Your task to perform on an android device: Go to CNN.com Image 0: 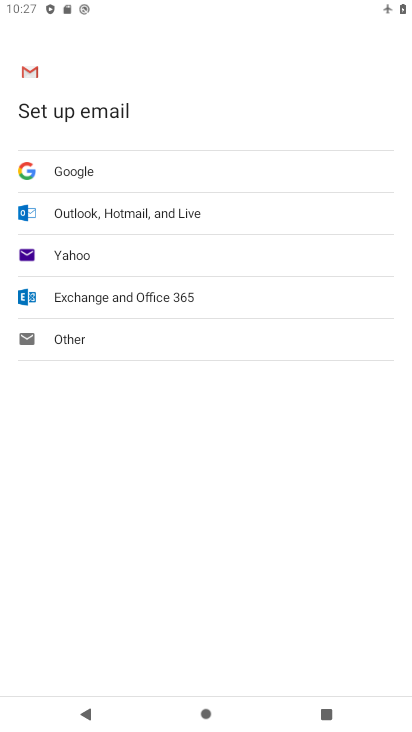
Step 0: press home button
Your task to perform on an android device: Go to CNN.com Image 1: 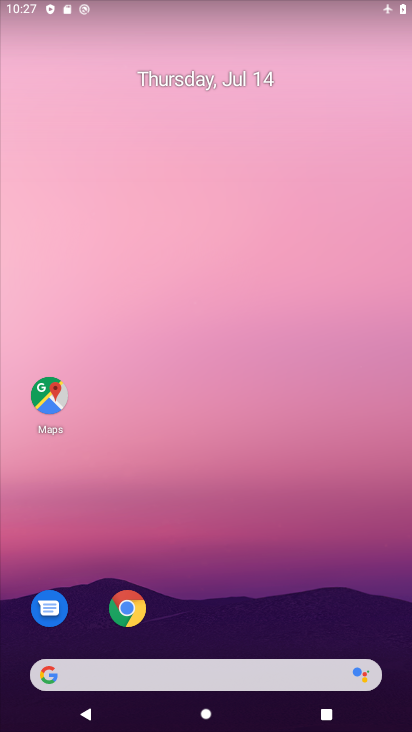
Step 1: click (124, 610)
Your task to perform on an android device: Go to CNN.com Image 2: 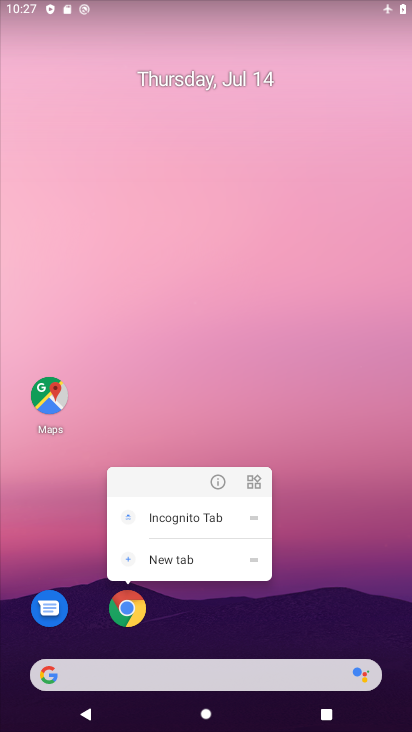
Step 2: click (132, 608)
Your task to perform on an android device: Go to CNN.com Image 3: 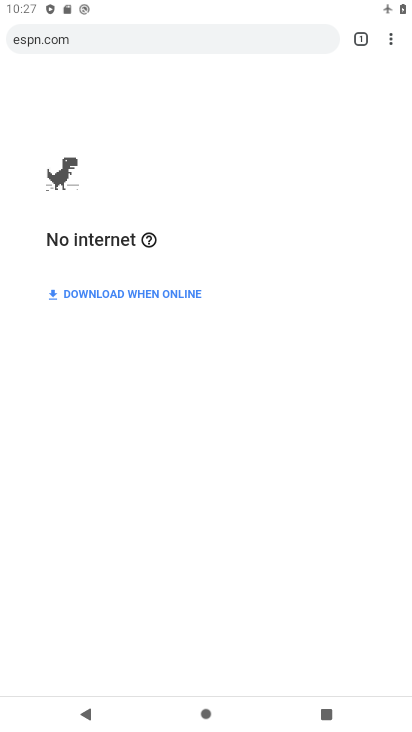
Step 3: click (167, 44)
Your task to perform on an android device: Go to CNN.com Image 4: 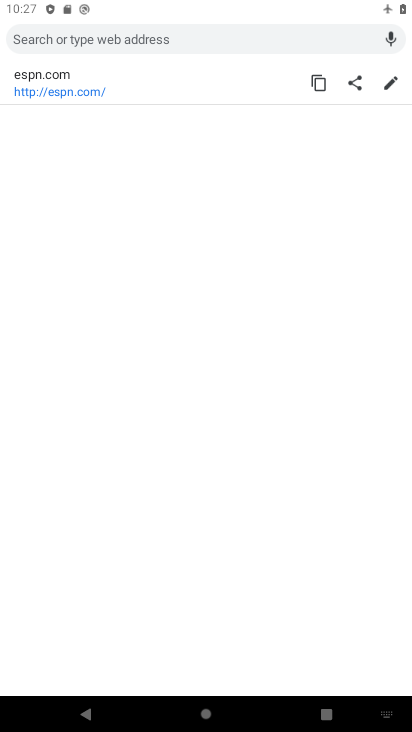
Step 4: type "CNN.com"
Your task to perform on an android device: Go to CNN.com Image 5: 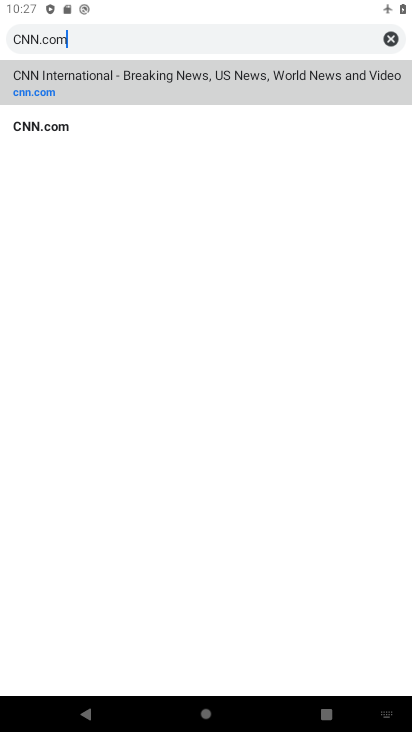
Step 5: click (105, 83)
Your task to perform on an android device: Go to CNN.com Image 6: 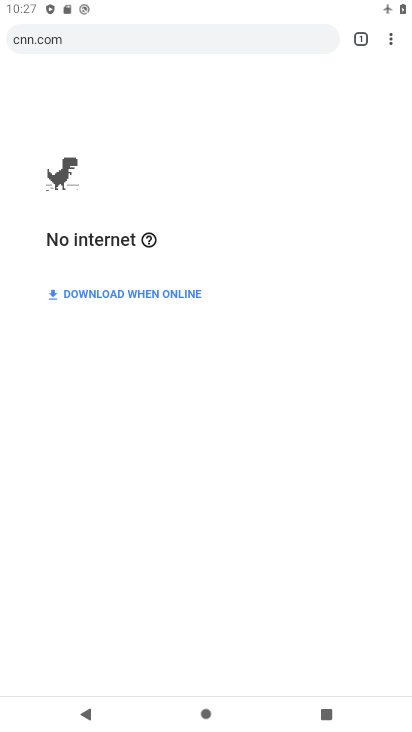
Step 6: task complete